Your task to perform on an android device: set the timer Image 0: 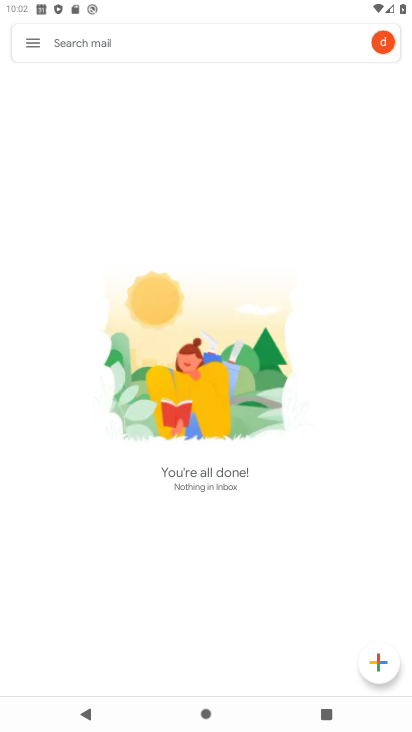
Step 0: press home button
Your task to perform on an android device: set the timer Image 1: 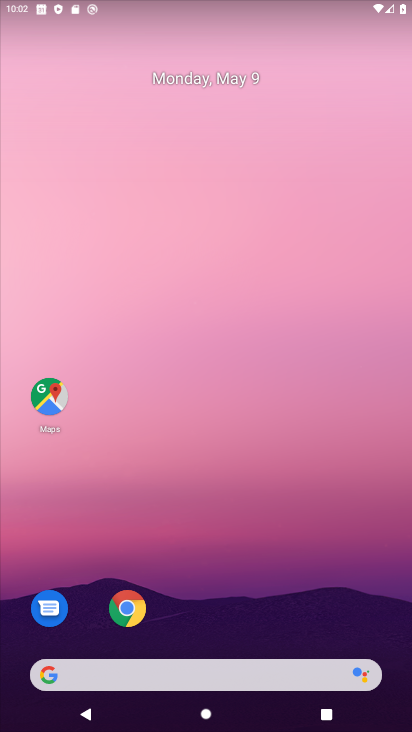
Step 1: drag from (194, 458) to (236, 76)
Your task to perform on an android device: set the timer Image 2: 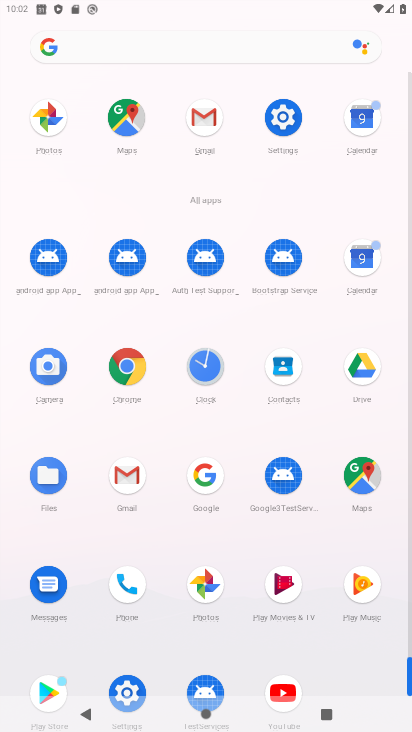
Step 2: click (204, 368)
Your task to perform on an android device: set the timer Image 3: 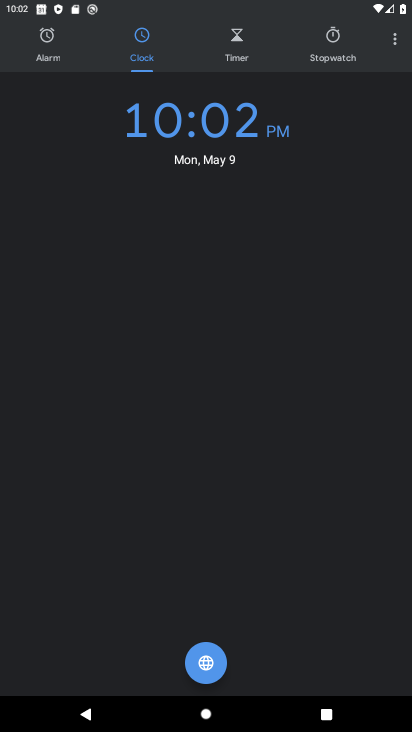
Step 3: click (242, 40)
Your task to perform on an android device: set the timer Image 4: 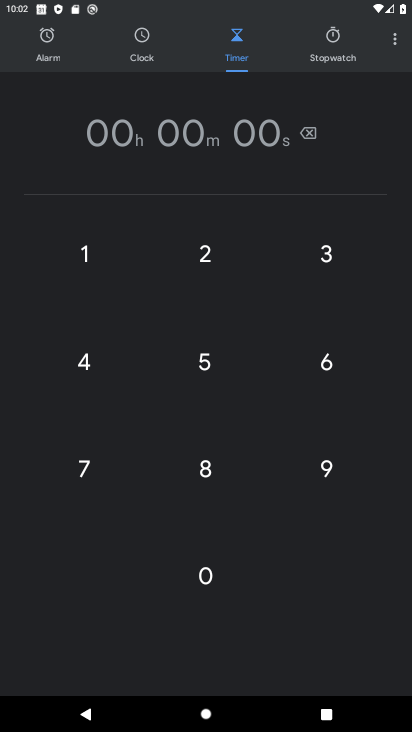
Step 4: click (94, 247)
Your task to perform on an android device: set the timer Image 5: 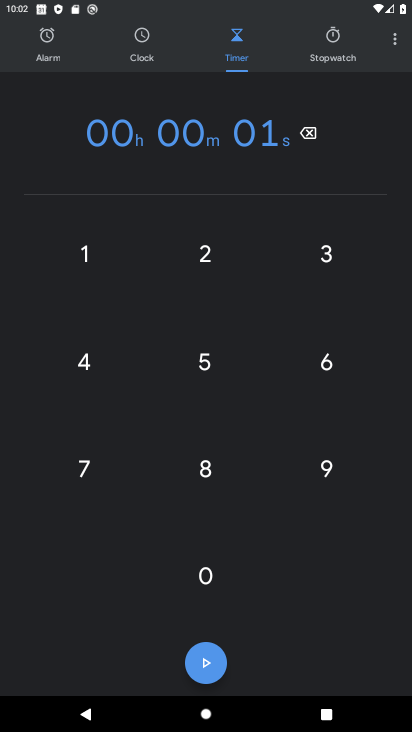
Step 5: click (197, 262)
Your task to perform on an android device: set the timer Image 6: 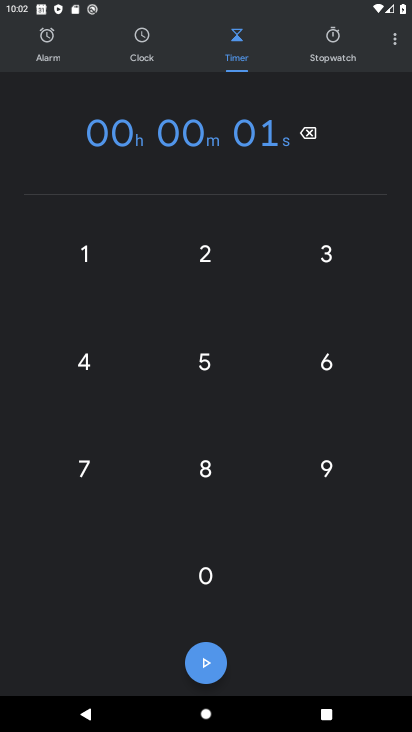
Step 6: click (197, 262)
Your task to perform on an android device: set the timer Image 7: 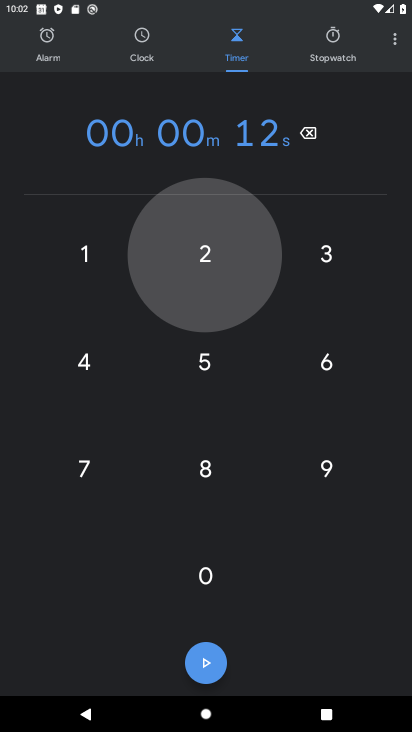
Step 7: click (197, 262)
Your task to perform on an android device: set the timer Image 8: 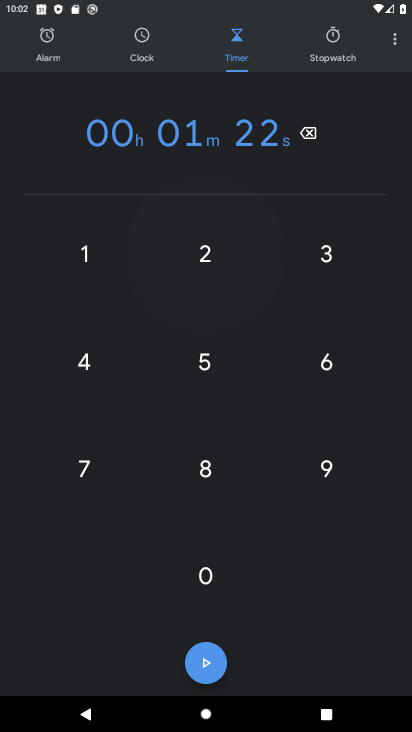
Step 8: click (197, 262)
Your task to perform on an android device: set the timer Image 9: 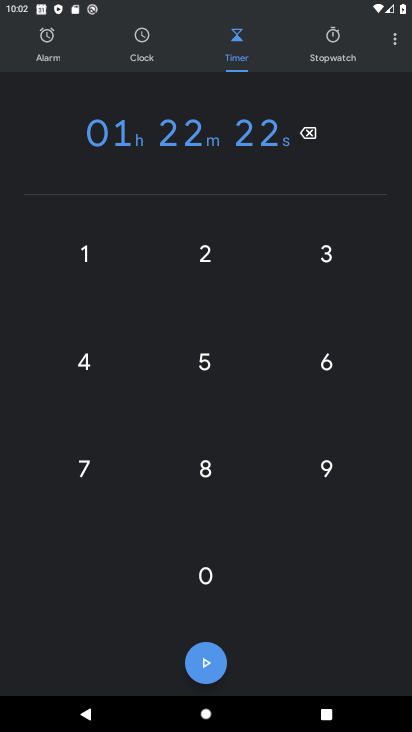
Step 9: click (212, 667)
Your task to perform on an android device: set the timer Image 10: 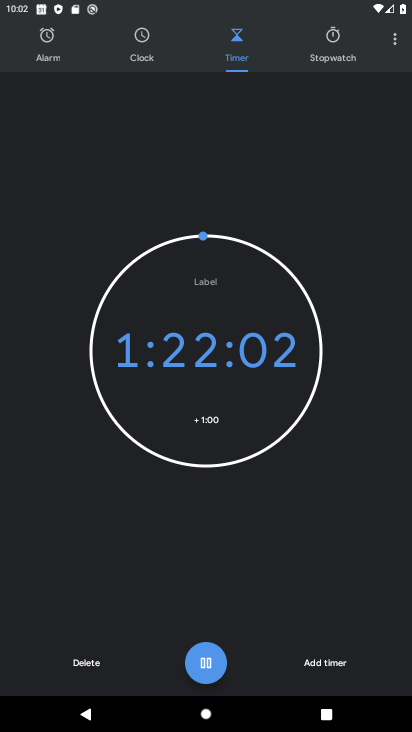
Step 10: task complete